Your task to perform on an android device: turn off notifications settings in the gmail app Image 0: 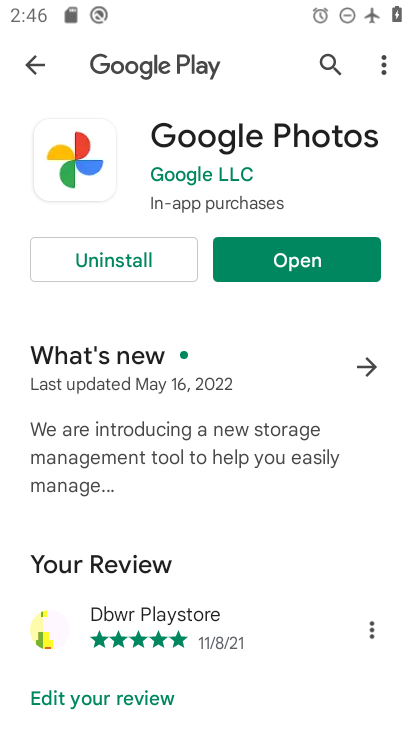
Step 0: press home button
Your task to perform on an android device: turn off notifications settings in the gmail app Image 1: 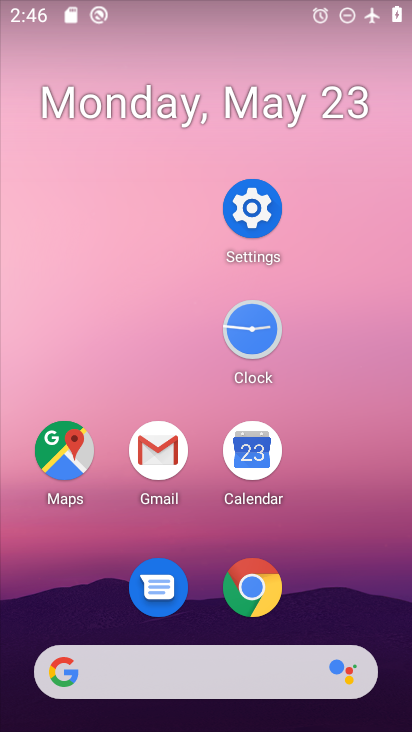
Step 1: click (243, 235)
Your task to perform on an android device: turn off notifications settings in the gmail app Image 2: 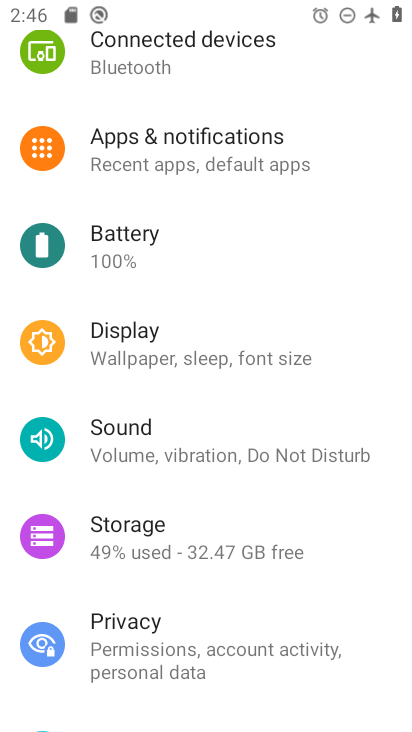
Step 2: click (271, 172)
Your task to perform on an android device: turn off notifications settings in the gmail app Image 3: 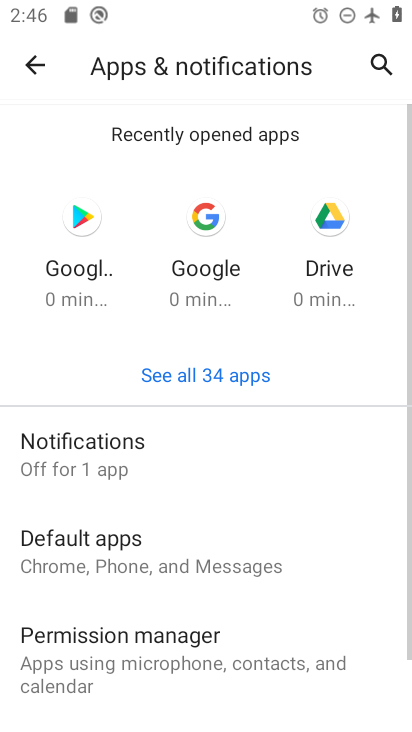
Step 3: drag from (231, 646) to (227, 299)
Your task to perform on an android device: turn off notifications settings in the gmail app Image 4: 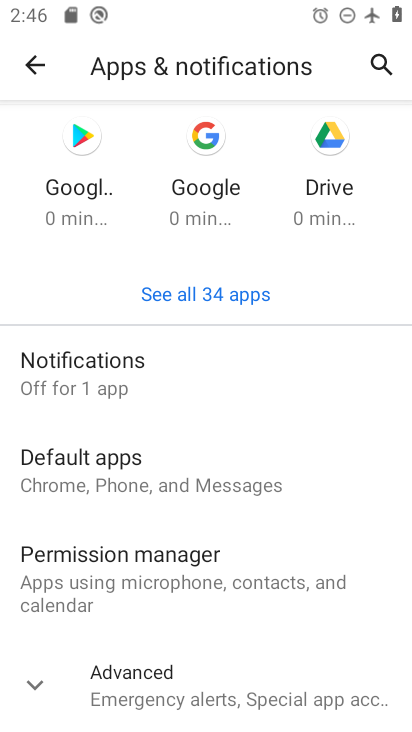
Step 4: click (217, 360)
Your task to perform on an android device: turn off notifications settings in the gmail app Image 5: 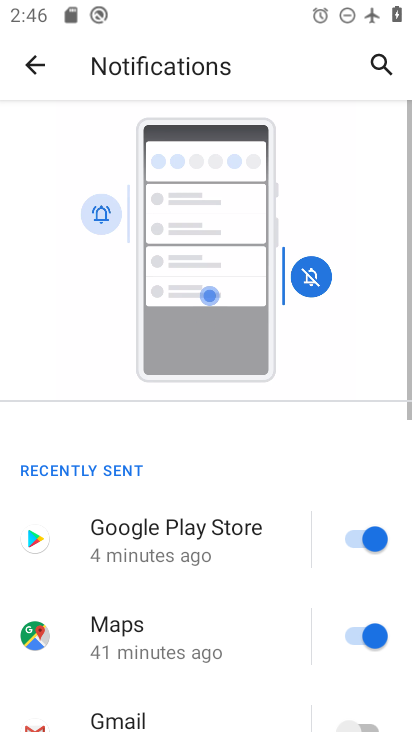
Step 5: drag from (235, 548) to (225, 251)
Your task to perform on an android device: turn off notifications settings in the gmail app Image 6: 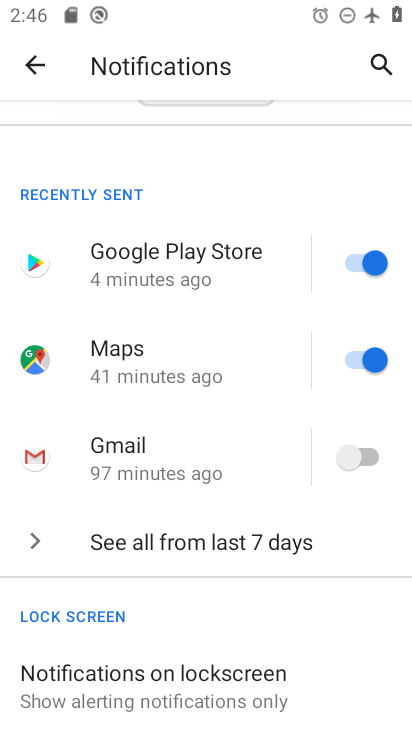
Step 6: drag from (201, 561) to (233, 310)
Your task to perform on an android device: turn off notifications settings in the gmail app Image 7: 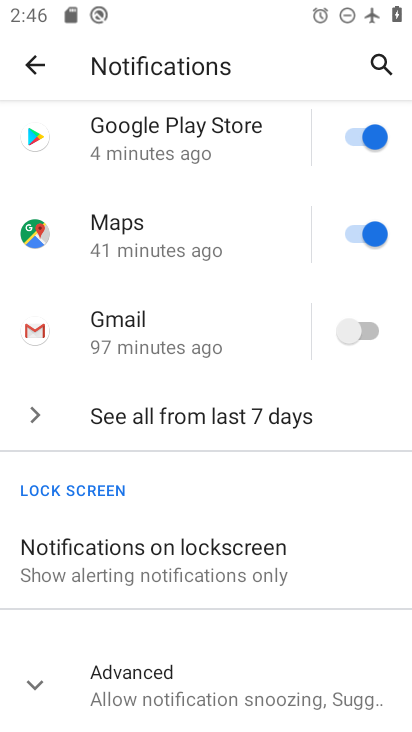
Step 7: click (237, 665)
Your task to perform on an android device: turn off notifications settings in the gmail app Image 8: 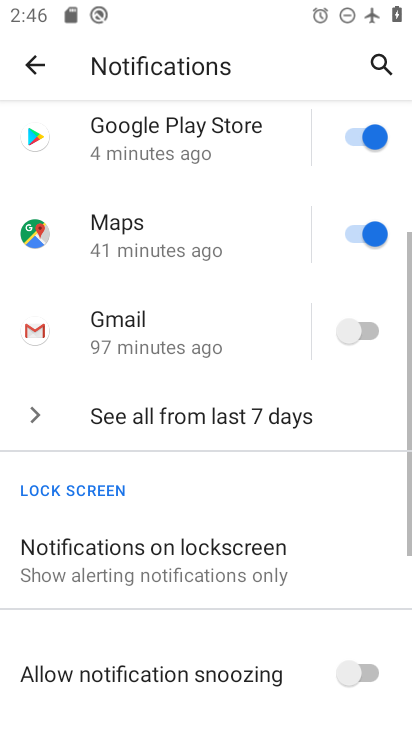
Step 8: drag from (257, 638) to (278, 294)
Your task to perform on an android device: turn off notifications settings in the gmail app Image 9: 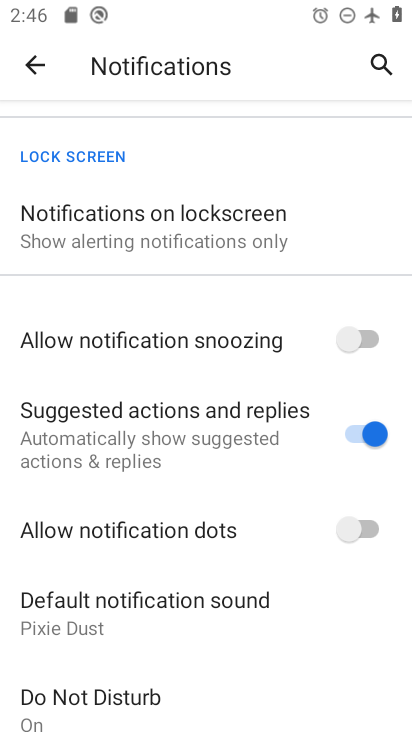
Step 9: drag from (183, 331) to (192, 728)
Your task to perform on an android device: turn off notifications settings in the gmail app Image 10: 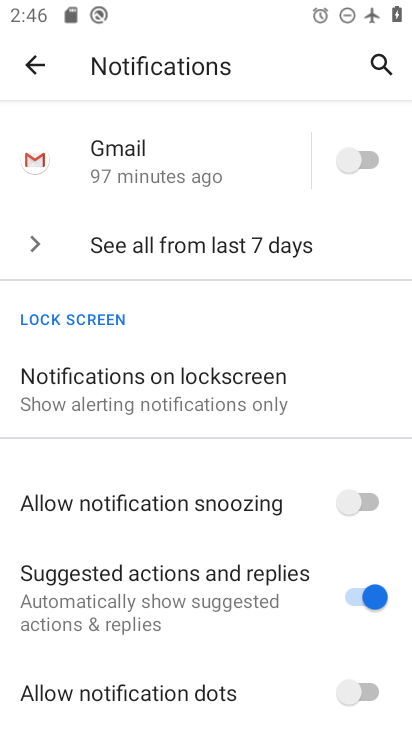
Step 10: click (50, 69)
Your task to perform on an android device: turn off notifications settings in the gmail app Image 11: 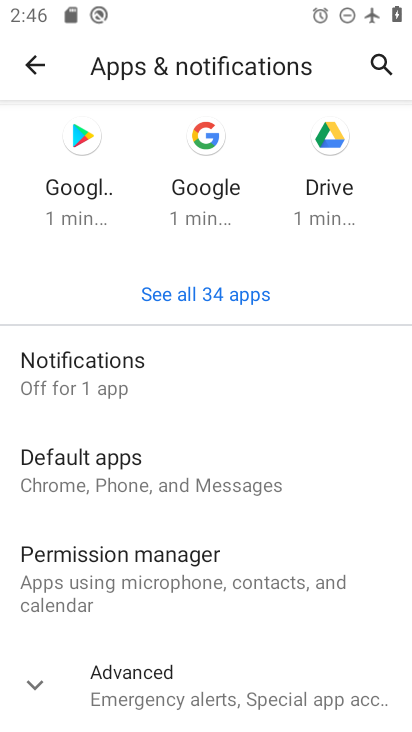
Step 11: task complete